Your task to perform on an android device: Go to wifi settings Image 0: 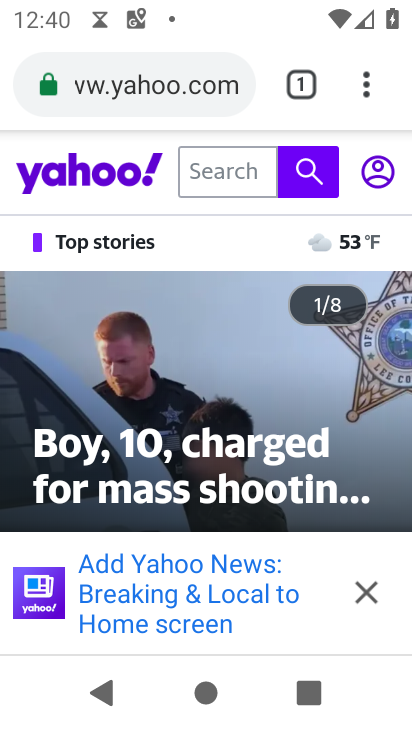
Step 0: press home button
Your task to perform on an android device: Go to wifi settings Image 1: 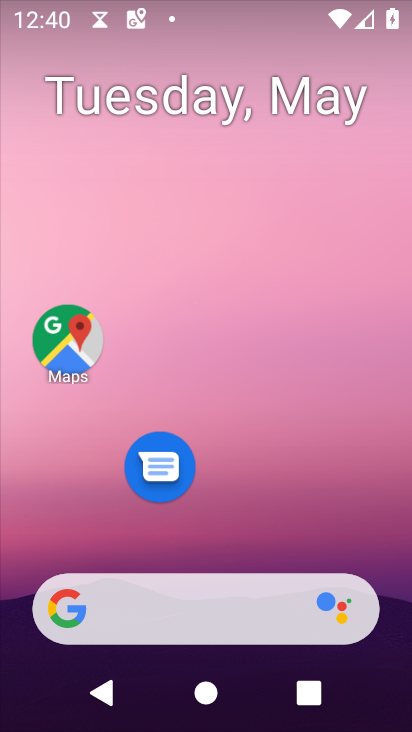
Step 1: drag from (263, 523) to (304, 83)
Your task to perform on an android device: Go to wifi settings Image 2: 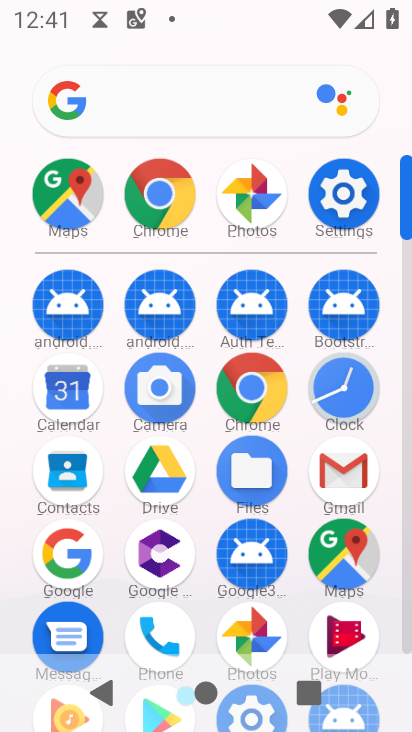
Step 2: click (349, 205)
Your task to perform on an android device: Go to wifi settings Image 3: 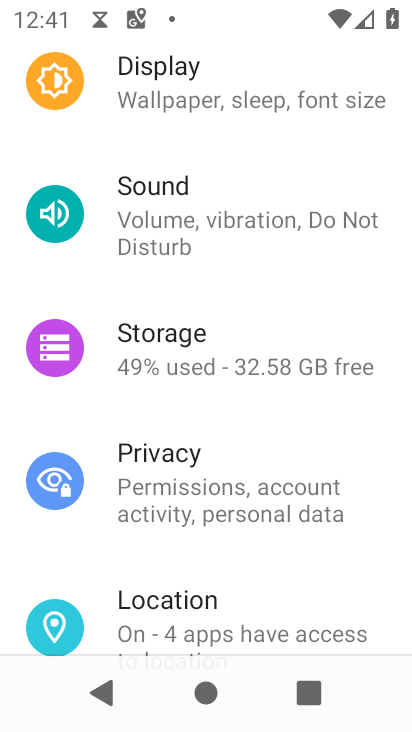
Step 3: drag from (227, 138) to (171, 362)
Your task to perform on an android device: Go to wifi settings Image 4: 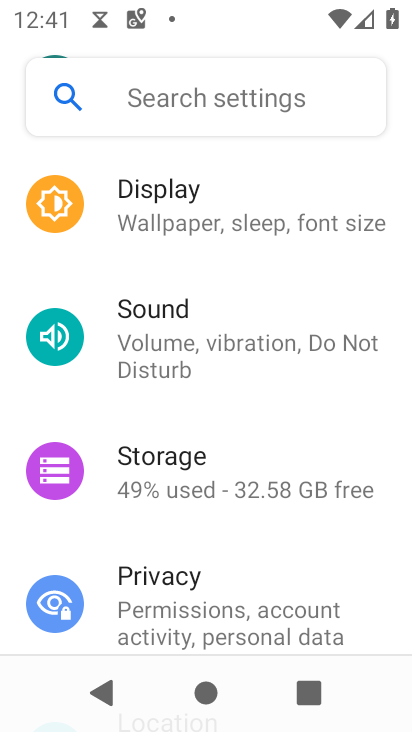
Step 4: drag from (229, 179) to (205, 553)
Your task to perform on an android device: Go to wifi settings Image 5: 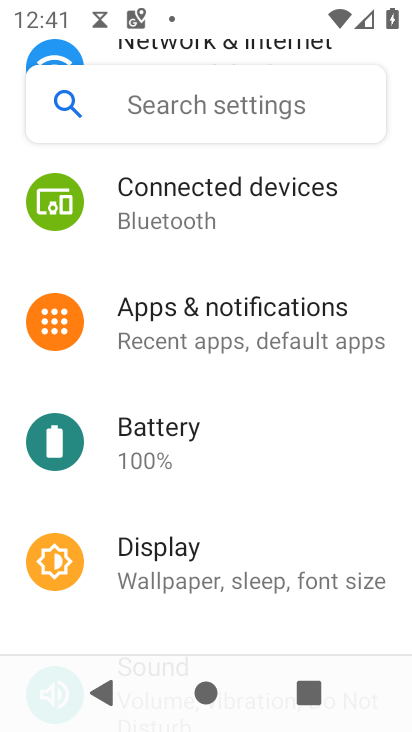
Step 5: drag from (248, 229) to (224, 568)
Your task to perform on an android device: Go to wifi settings Image 6: 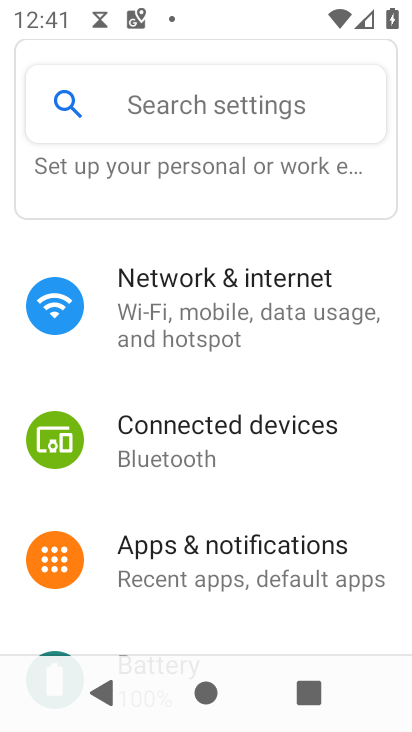
Step 6: click (213, 321)
Your task to perform on an android device: Go to wifi settings Image 7: 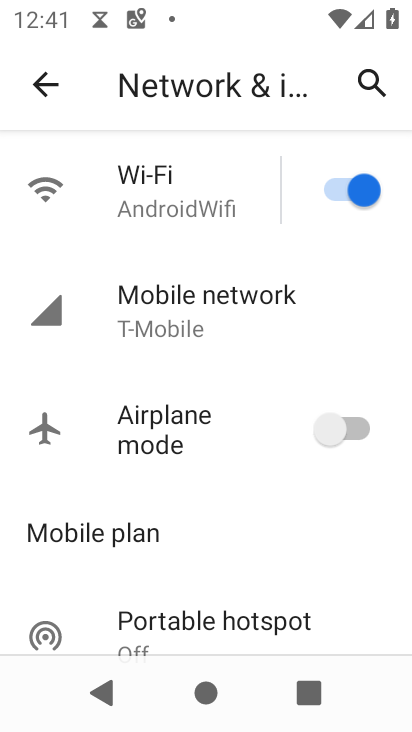
Step 7: click (182, 195)
Your task to perform on an android device: Go to wifi settings Image 8: 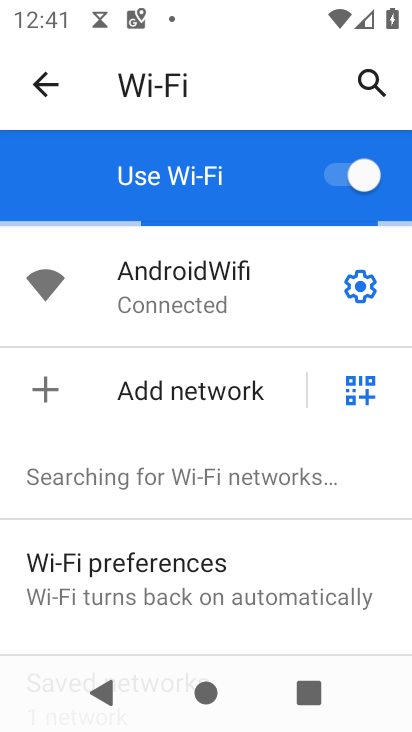
Step 8: task complete